Your task to perform on an android device: Search for seafood restaurants on Google Maps Image 0: 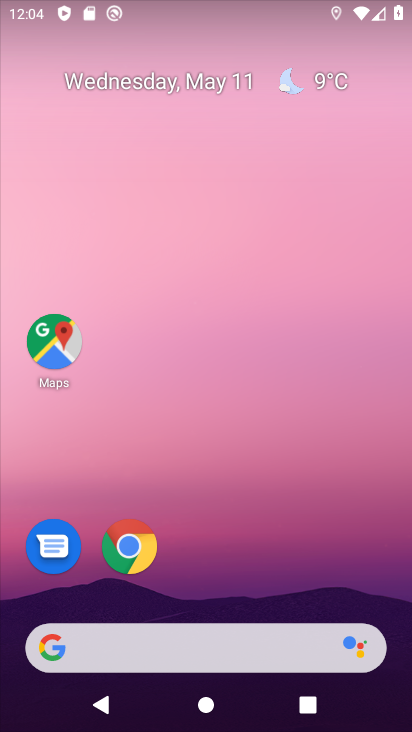
Step 0: drag from (141, 648) to (283, 184)
Your task to perform on an android device: Search for seafood restaurants on Google Maps Image 1: 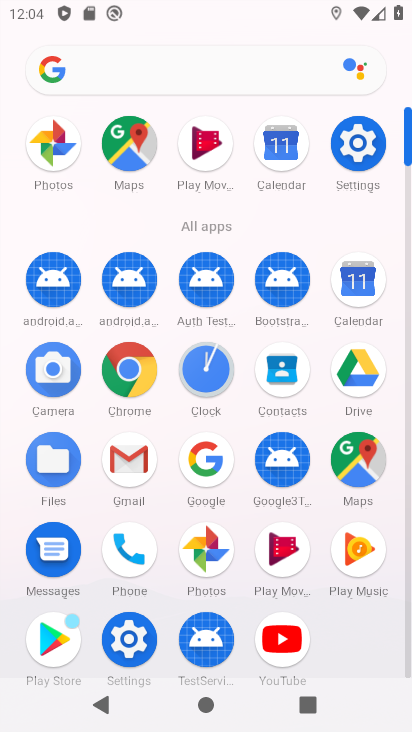
Step 1: click (129, 159)
Your task to perform on an android device: Search for seafood restaurants on Google Maps Image 2: 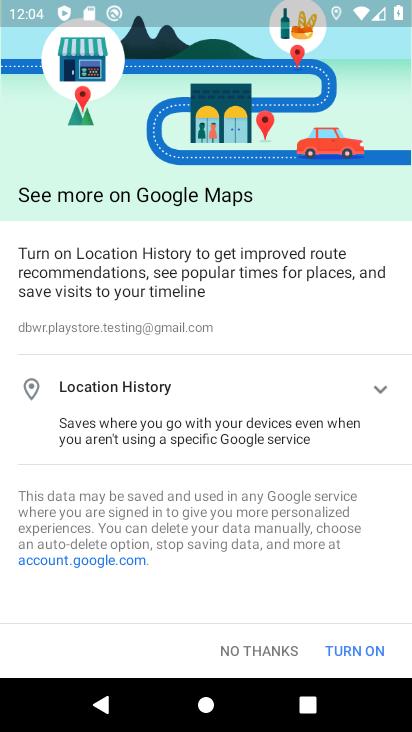
Step 2: click (238, 652)
Your task to perform on an android device: Search for seafood restaurants on Google Maps Image 3: 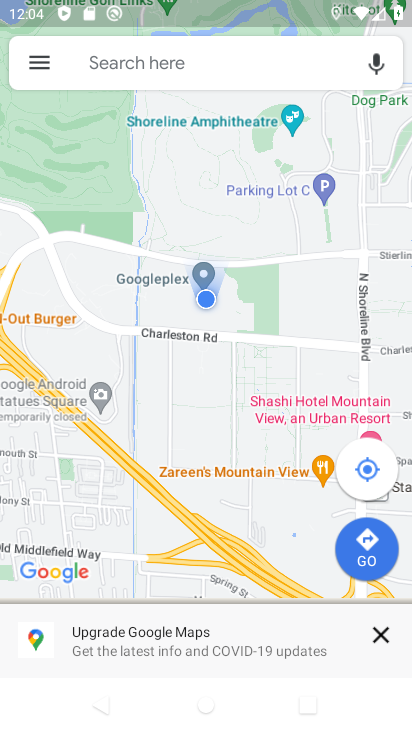
Step 3: click (208, 64)
Your task to perform on an android device: Search for seafood restaurants on Google Maps Image 4: 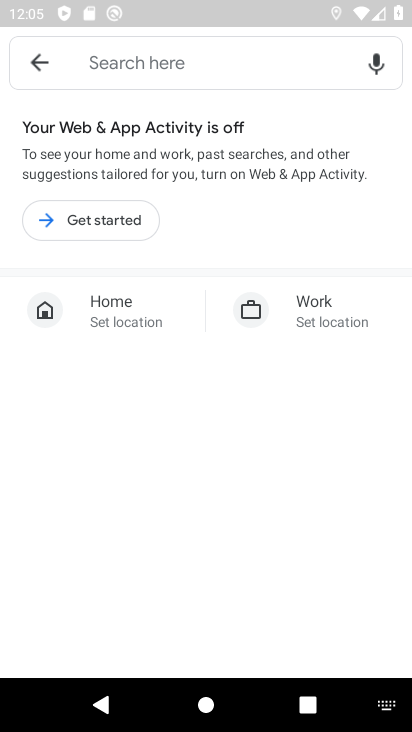
Step 4: type "seafood restaurants"
Your task to perform on an android device: Search for seafood restaurants on Google Maps Image 5: 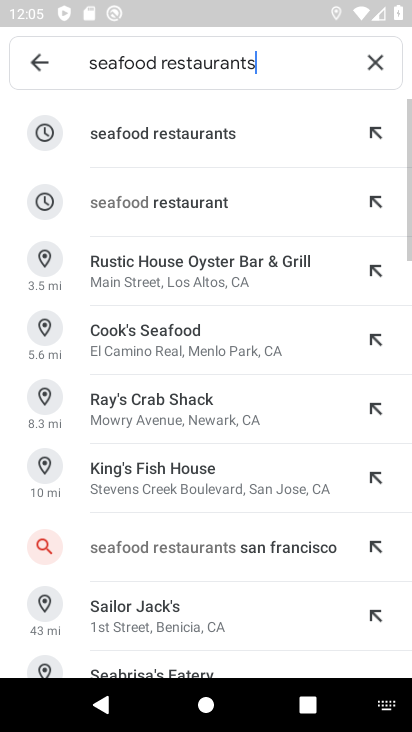
Step 5: click (210, 138)
Your task to perform on an android device: Search for seafood restaurants on Google Maps Image 6: 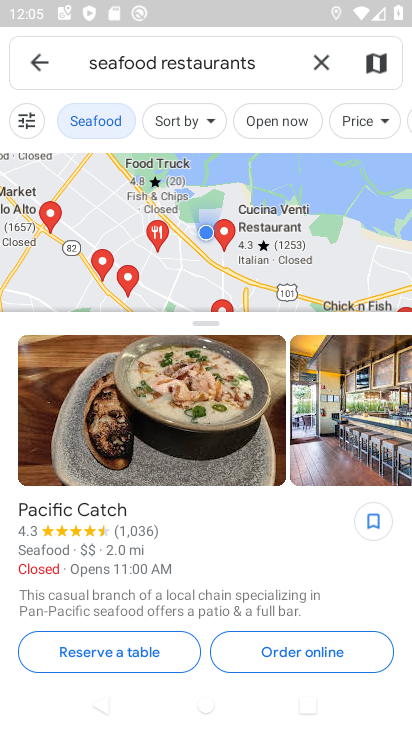
Step 6: task complete